Your task to perform on an android device: turn on the 12-hour format for clock Image 0: 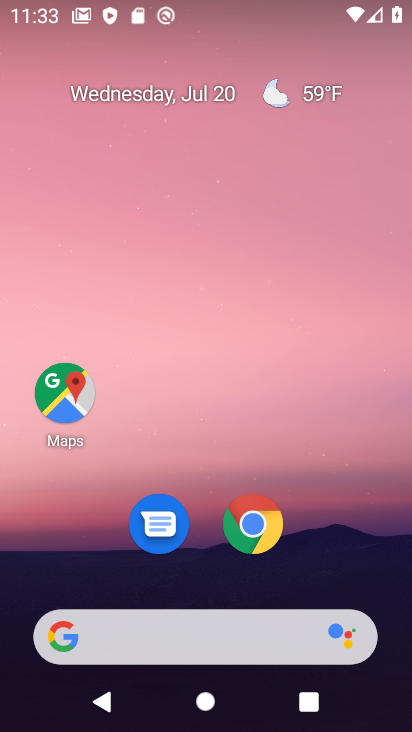
Step 0: drag from (191, 618) to (399, 9)
Your task to perform on an android device: turn on the 12-hour format for clock Image 1: 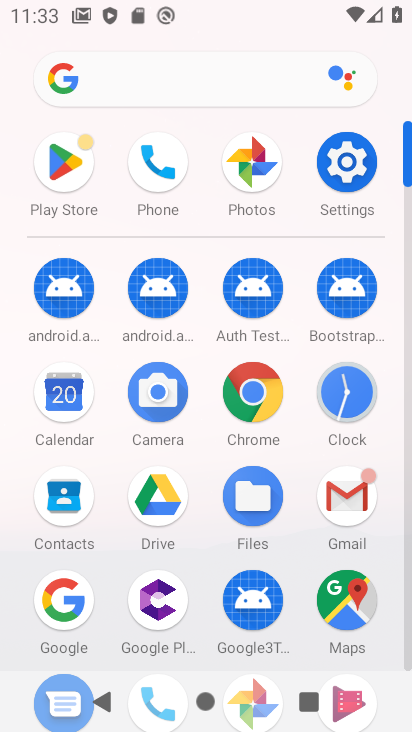
Step 1: click (340, 402)
Your task to perform on an android device: turn on the 12-hour format for clock Image 2: 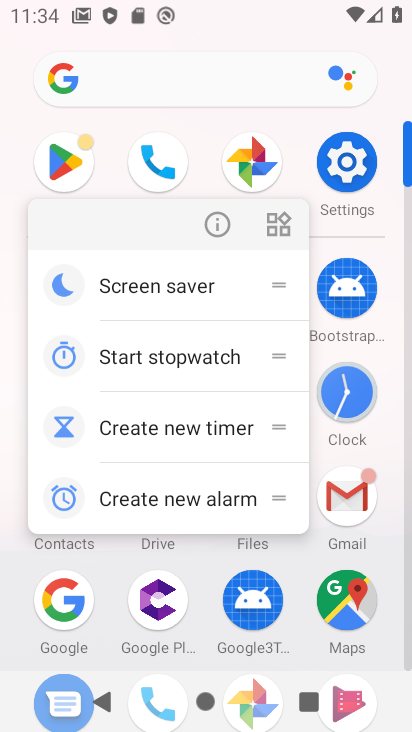
Step 2: click (345, 398)
Your task to perform on an android device: turn on the 12-hour format for clock Image 3: 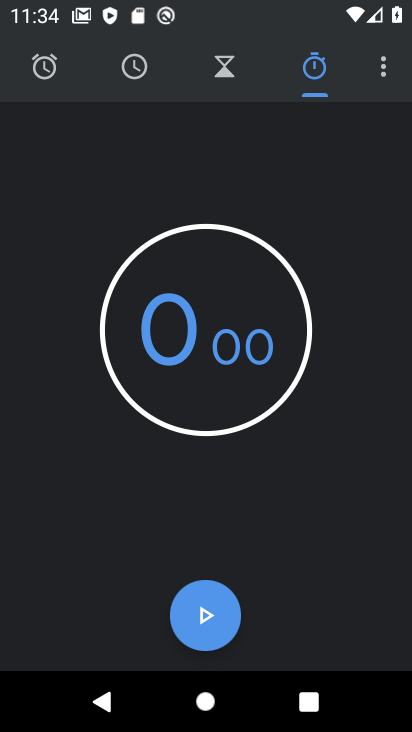
Step 3: click (385, 62)
Your task to perform on an android device: turn on the 12-hour format for clock Image 4: 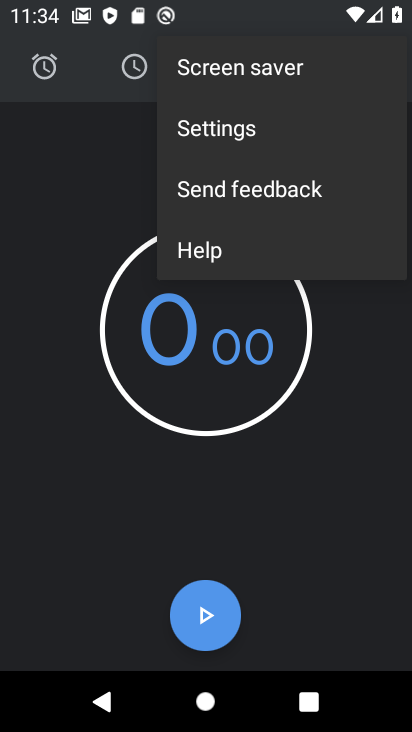
Step 4: click (210, 127)
Your task to perform on an android device: turn on the 12-hour format for clock Image 5: 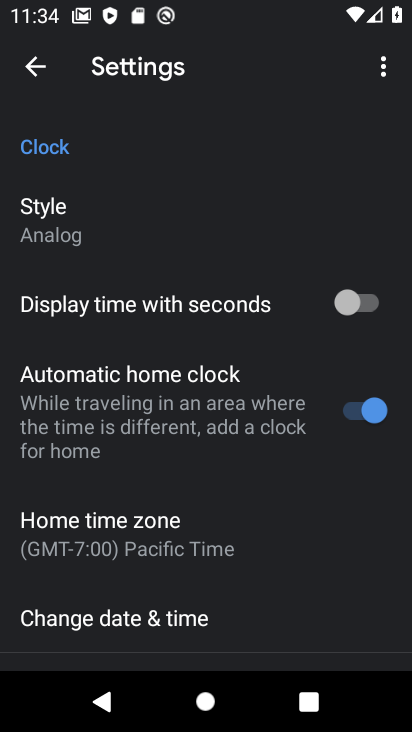
Step 5: click (145, 617)
Your task to perform on an android device: turn on the 12-hour format for clock Image 6: 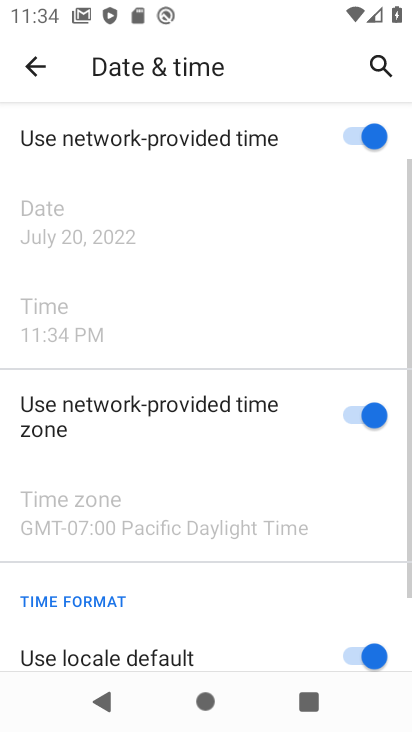
Step 6: task complete